Your task to perform on an android device: change the clock display to analog Image 0: 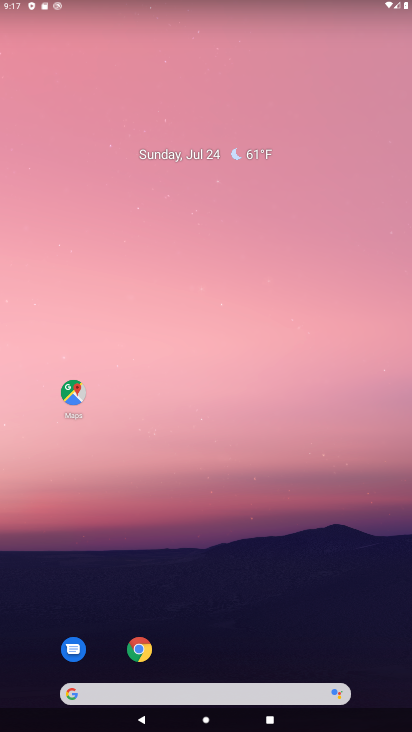
Step 0: drag from (288, 631) to (281, 12)
Your task to perform on an android device: change the clock display to analog Image 1: 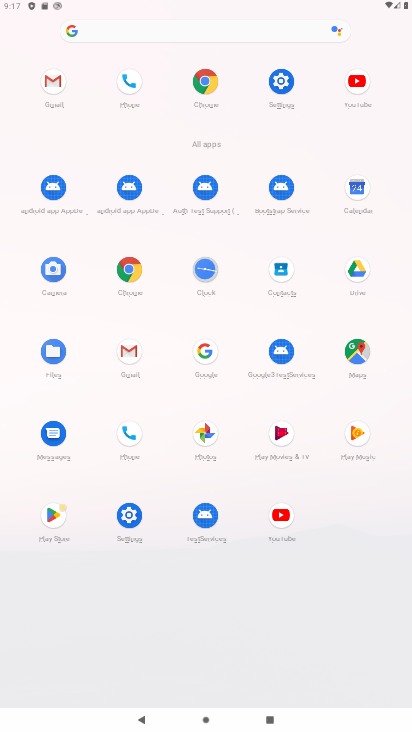
Step 1: click (203, 268)
Your task to perform on an android device: change the clock display to analog Image 2: 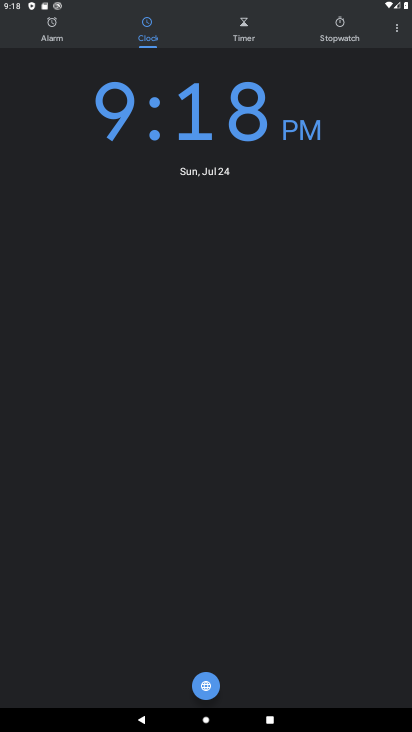
Step 2: click (404, 24)
Your task to perform on an android device: change the clock display to analog Image 3: 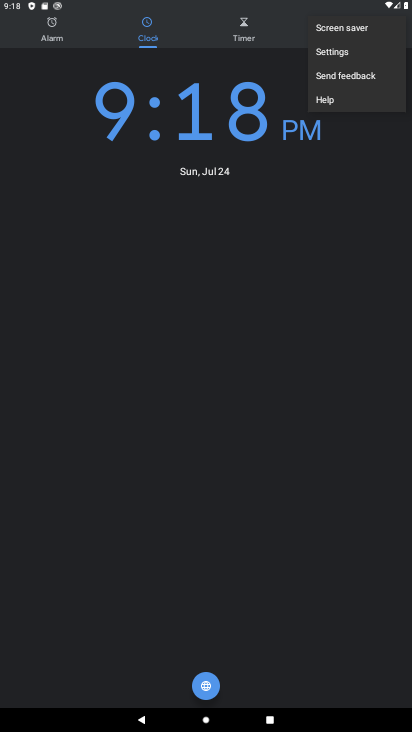
Step 3: click (367, 56)
Your task to perform on an android device: change the clock display to analog Image 4: 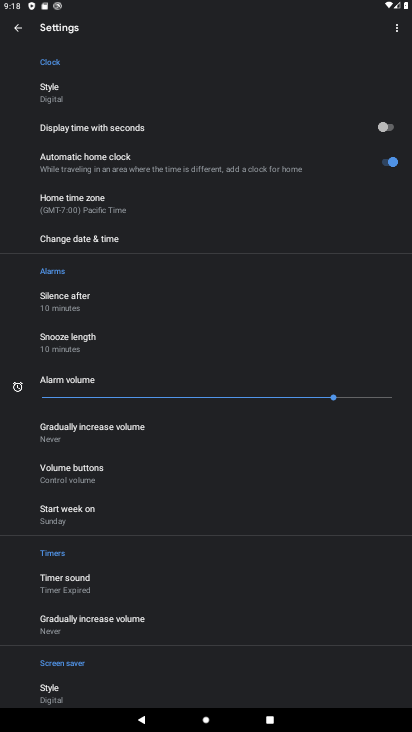
Step 4: click (67, 99)
Your task to perform on an android device: change the clock display to analog Image 5: 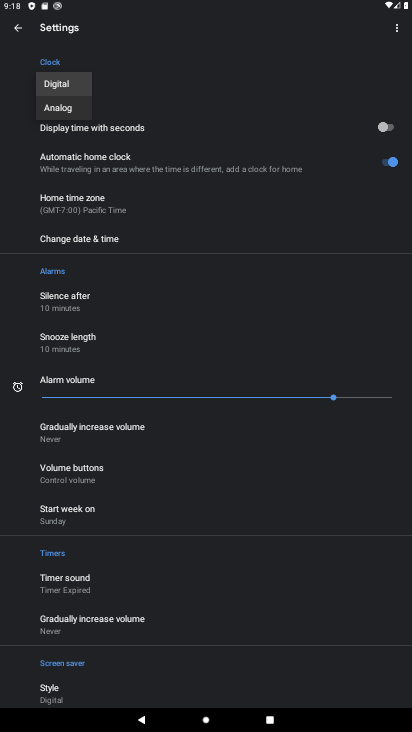
Step 5: click (79, 112)
Your task to perform on an android device: change the clock display to analog Image 6: 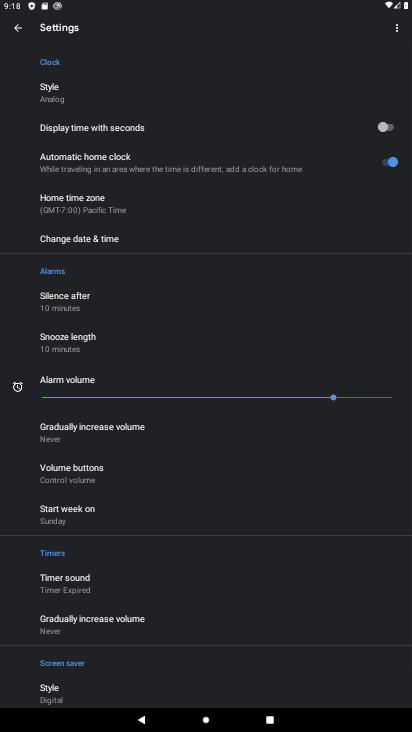
Step 6: task complete